Your task to perform on an android device: Open calendar and show me the second week of next month Image 0: 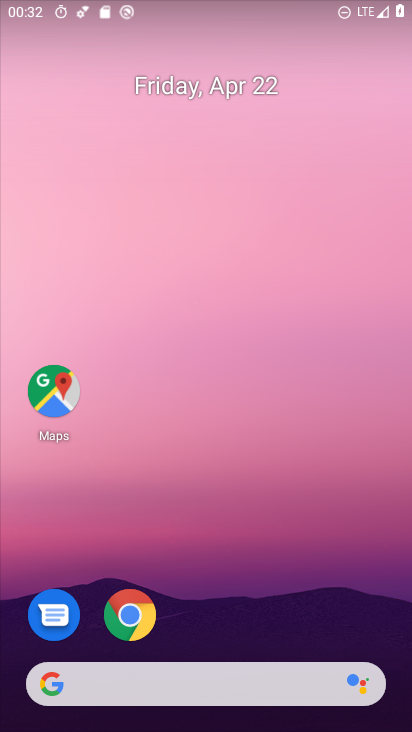
Step 0: drag from (209, 652) to (209, 75)
Your task to perform on an android device: Open calendar and show me the second week of next month Image 1: 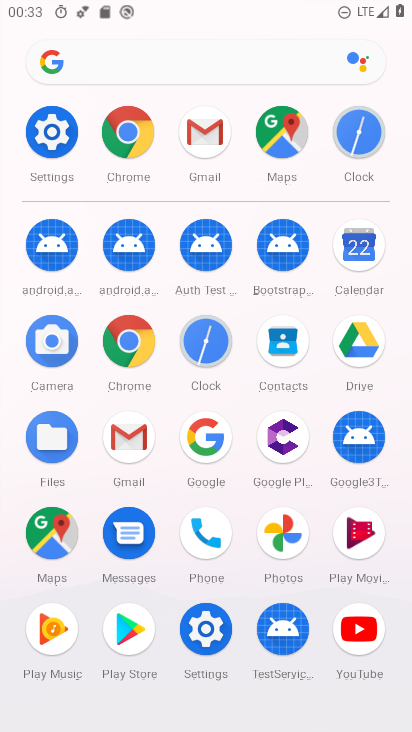
Step 1: click (359, 248)
Your task to perform on an android device: Open calendar and show me the second week of next month Image 2: 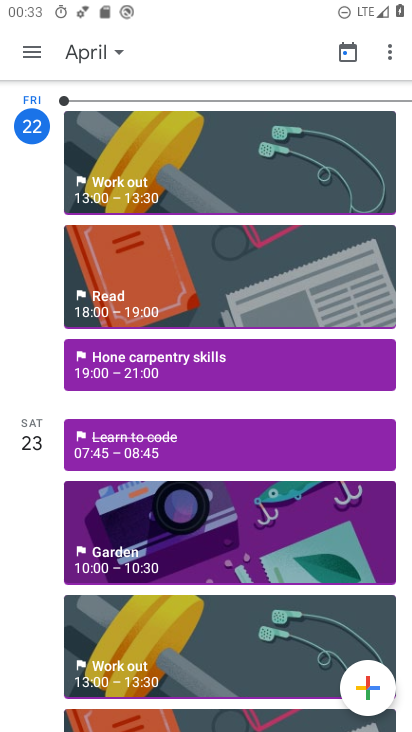
Step 2: click (26, 54)
Your task to perform on an android device: Open calendar and show me the second week of next month Image 3: 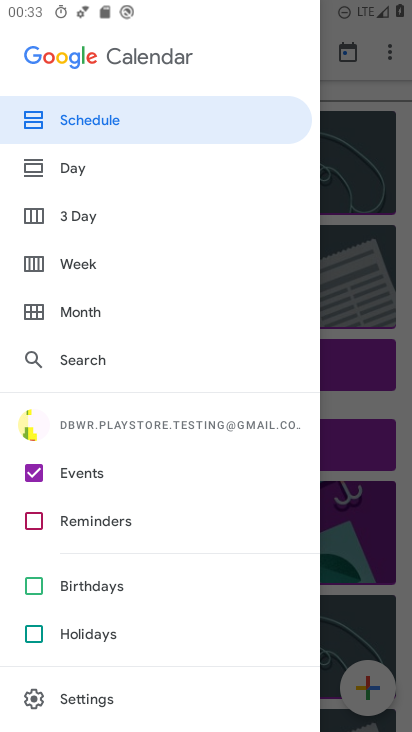
Step 3: click (60, 263)
Your task to perform on an android device: Open calendar and show me the second week of next month Image 4: 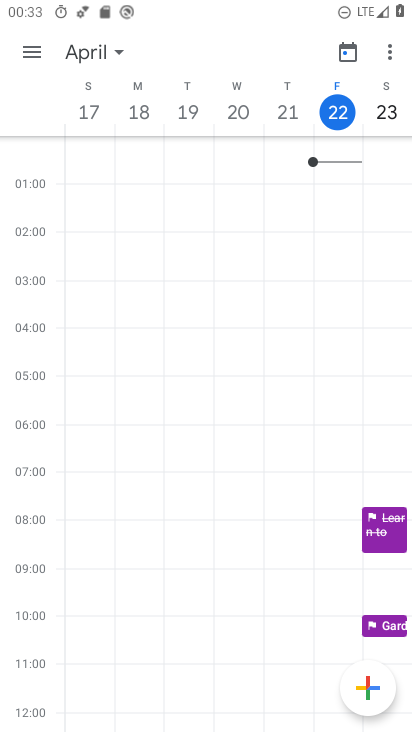
Step 4: drag from (391, 110) to (45, 118)
Your task to perform on an android device: Open calendar and show me the second week of next month Image 5: 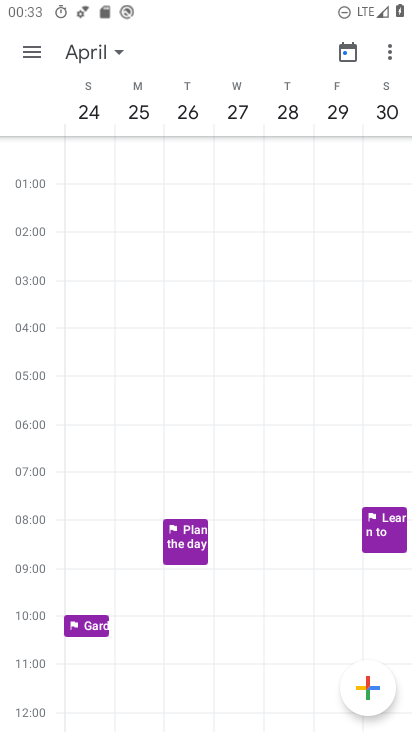
Step 5: drag from (391, 107) to (7, 110)
Your task to perform on an android device: Open calendar and show me the second week of next month Image 6: 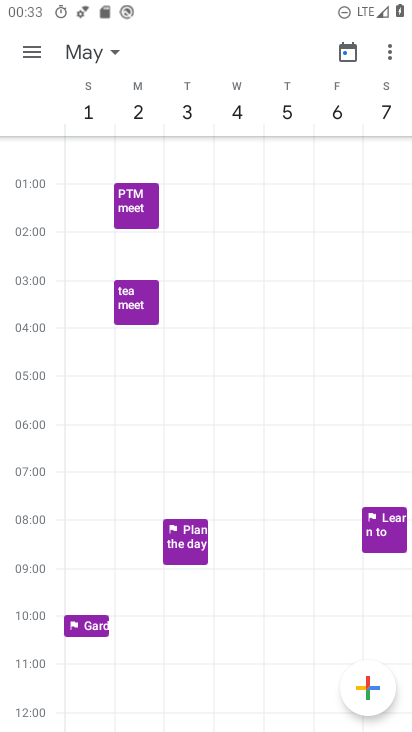
Step 6: drag from (383, 104) to (48, 103)
Your task to perform on an android device: Open calendar and show me the second week of next month Image 7: 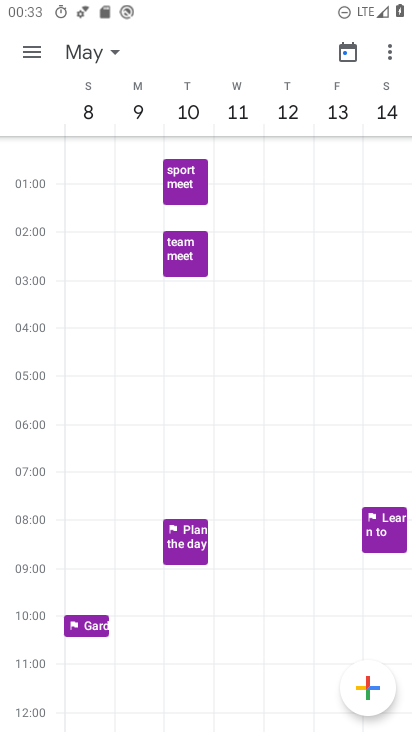
Step 7: click (82, 111)
Your task to perform on an android device: Open calendar and show me the second week of next month Image 8: 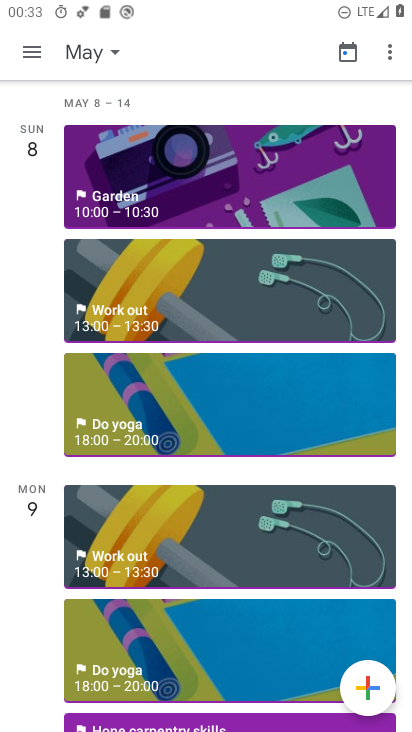
Step 8: drag from (36, 433) to (25, 130)
Your task to perform on an android device: Open calendar and show me the second week of next month Image 9: 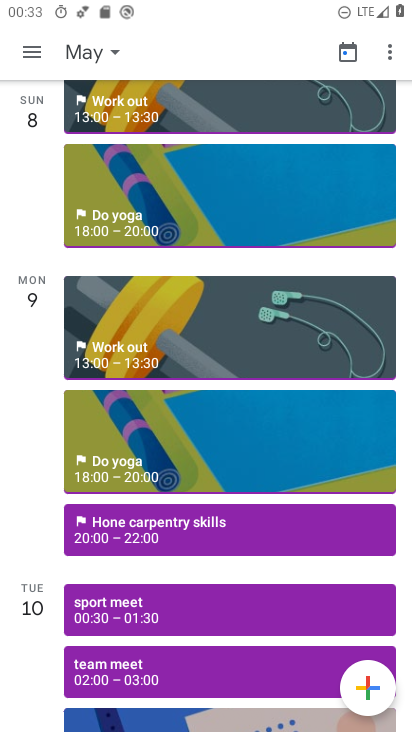
Step 9: click (42, 524)
Your task to perform on an android device: Open calendar and show me the second week of next month Image 10: 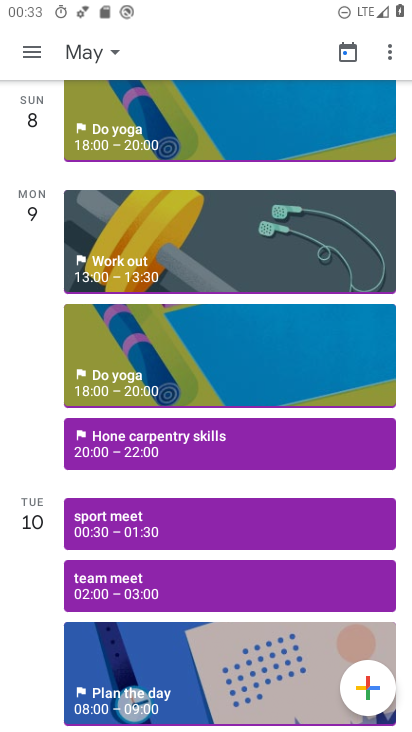
Step 10: click (58, 163)
Your task to perform on an android device: Open calendar and show me the second week of next month Image 11: 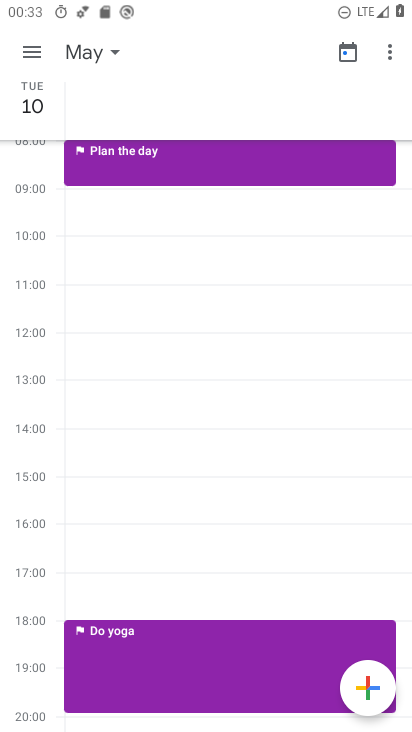
Step 11: drag from (46, 550) to (42, 179)
Your task to perform on an android device: Open calendar and show me the second week of next month Image 12: 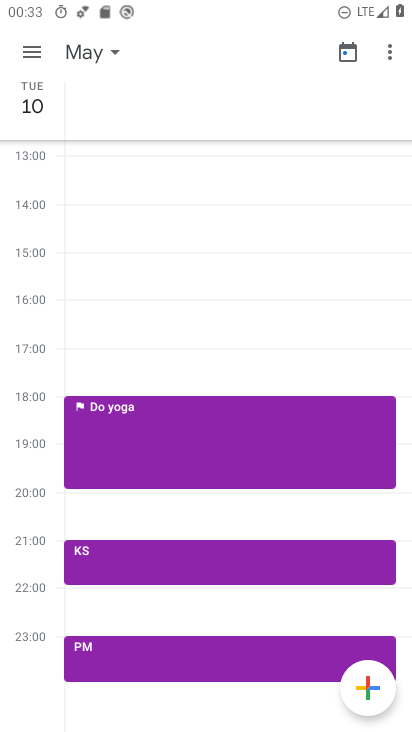
Step 12: click (37, 123)
Your task to perform on an android device: Open calendar and show me the second week of next month Image 13: 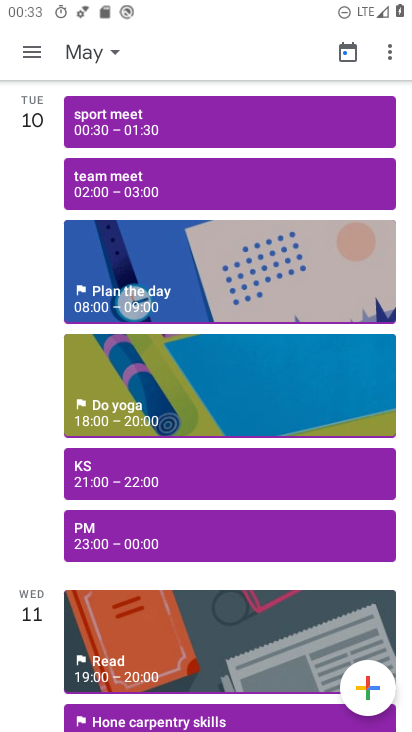
Step 13: task complete